Your task to perform on an android device: turn off data saver in the chrome app Image 0: 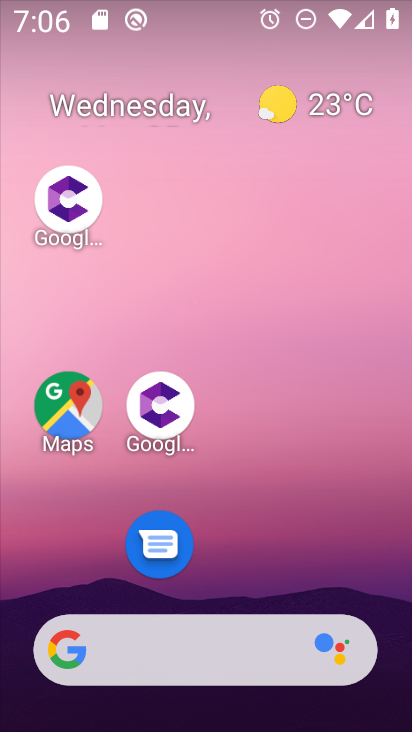
Step 0: drag from (255, 473) to (244, 9)
Your task to perform on an android device: turn off data saver in the chrome app Image 1: 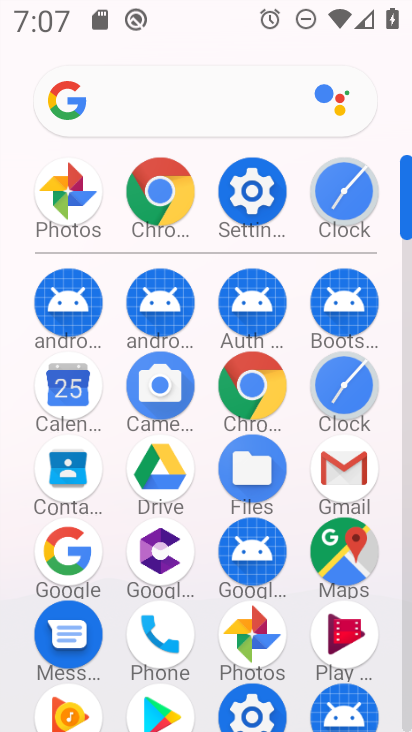
Step 1: click (159, 188)
Your task to perform on an android device: turn off data saver in the chrome app Image 2: 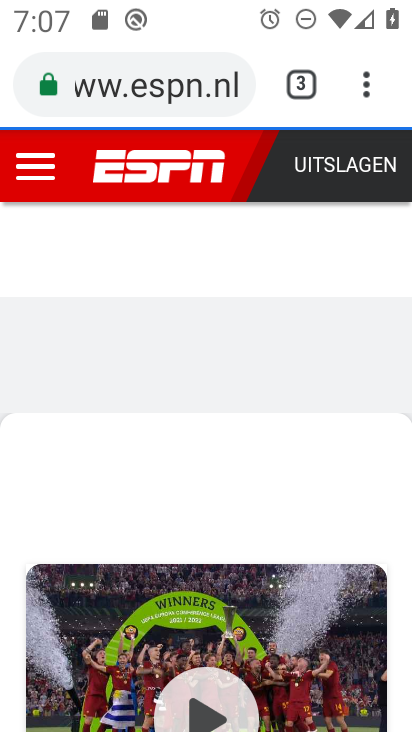
Step 2: click (367, 89)
Your task to perform on an android device: turn off data saver in the chrome app Image 3: 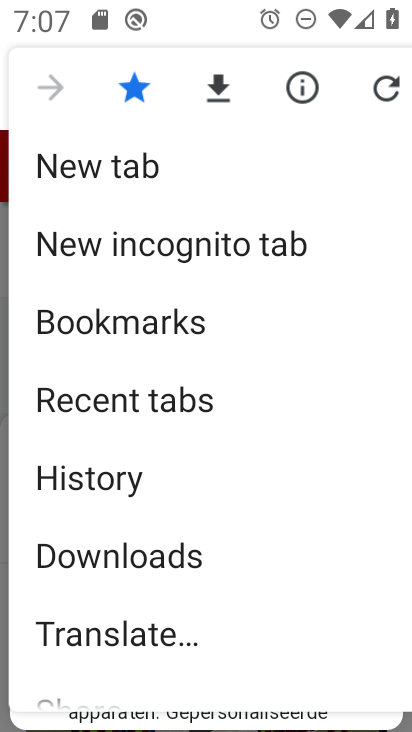
Step 3: drag from (232, 593) to (230, 313)
Your task to perform on an android device: turn off data saver in the chrome app Image 4: 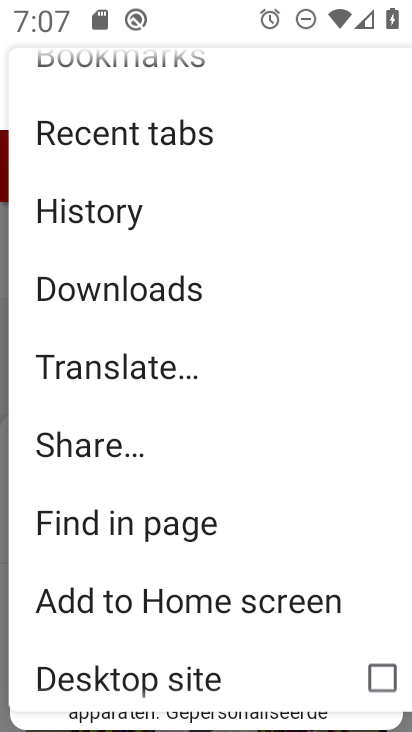
Step 4: drag from (268, 485) to (220, 233)
Your task to perform on an android device: turn off data saver in the chrome app Image 5: 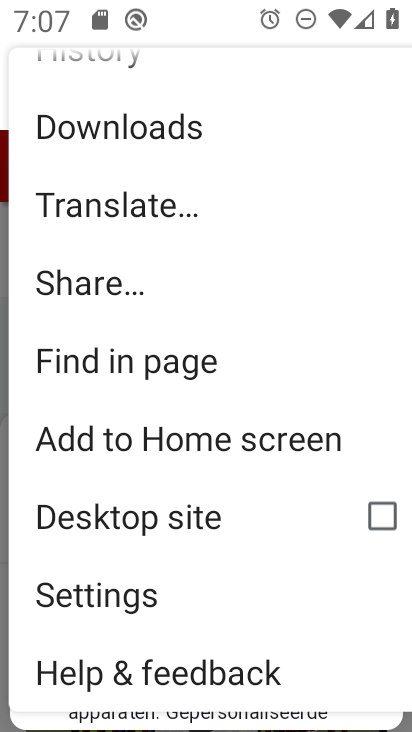
Step 5: click (106, 584)
Your task to perform on an android device: turn off data saver in the chrome app Image 6: 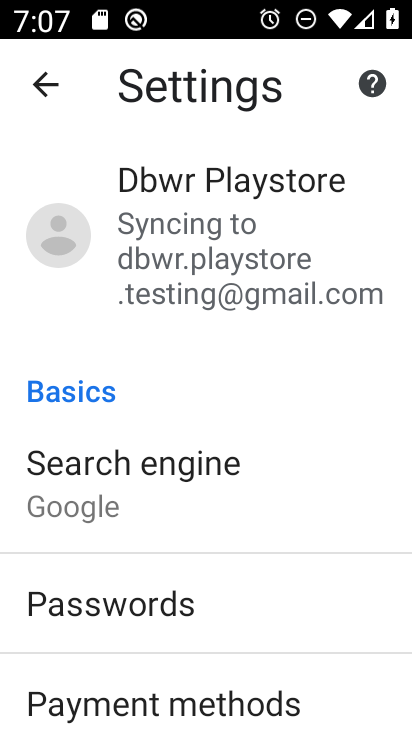
Step 6: drag from (251, 546) to (217, 248)
Your task to perform on an android device: turn off data saver in the chrome app Image 7: 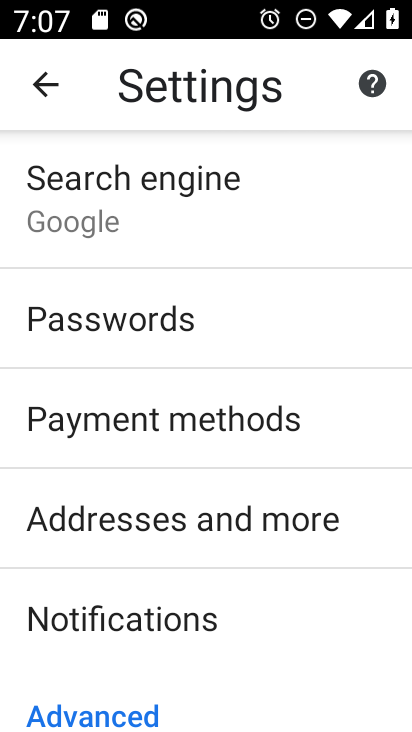
Step 7: drag from (245, 567) to (214, 227)
Your task to perform on an android device: turn off data saver in the chrome app Image 8: 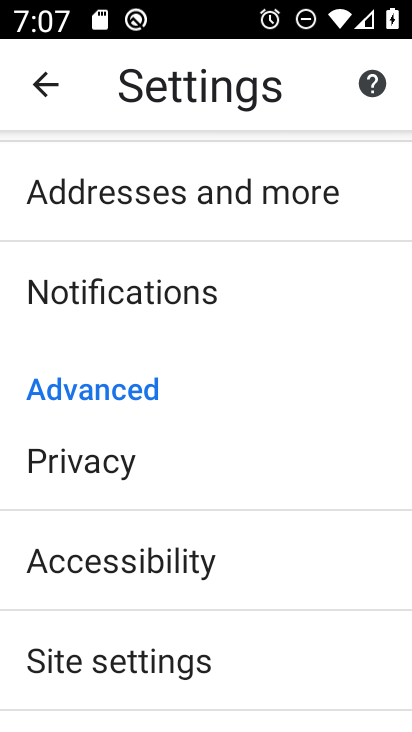
Step 8: drag from (208, 458) to (184, 172)
Your task to perform on an android device: turn off data saver in the chrome app Image 9: 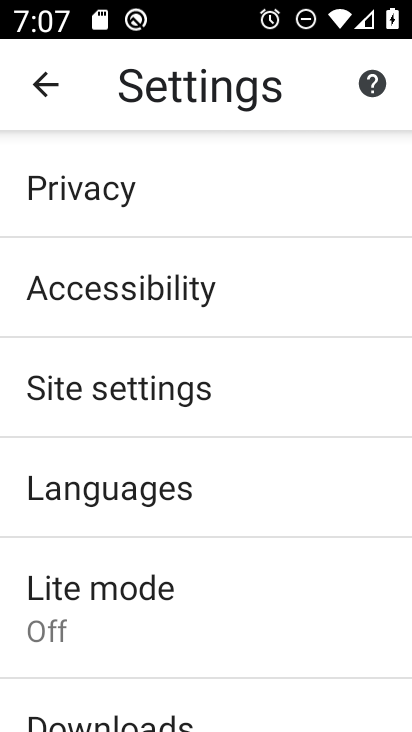
Step 9: click (119, 589)
Your task to perform on an android device: turn off data saver in the chrome app Image 10: 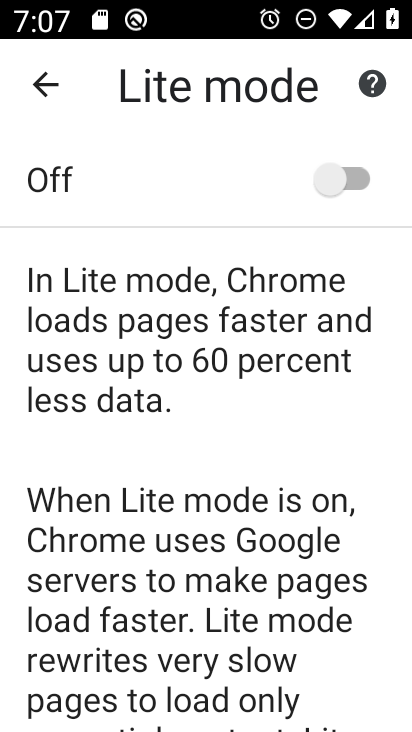
Step 10: task complete